Your task to perform on an android device: toggle airplane mode Image 0: 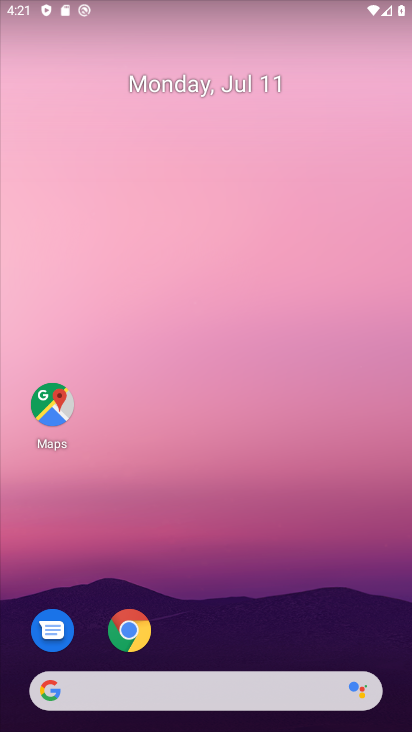
Step 0: drag from (239, 424) to (246, 169)
Your task to perform on an android device: toggle airplane mode Image 1: 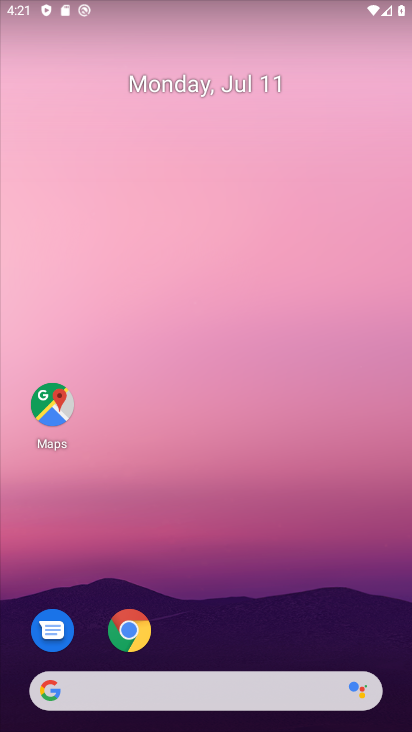
Step 1: drag from (214, 659) to (309, 120)
Your task to perform on an android device: toggle airplane mode Image 2: 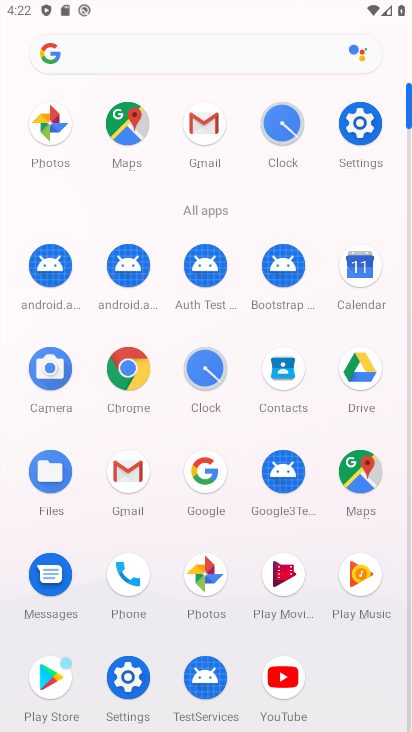
Step 2: click (135, 683)
Your task to perform on an android device: toggle airplane mode Image 3: 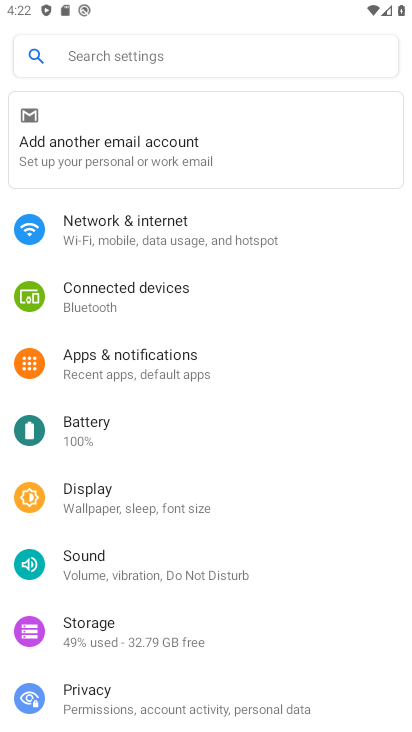
Step 3: click (193, 242)
Your task to perform on an android device: toggle airplane mode Image 4: 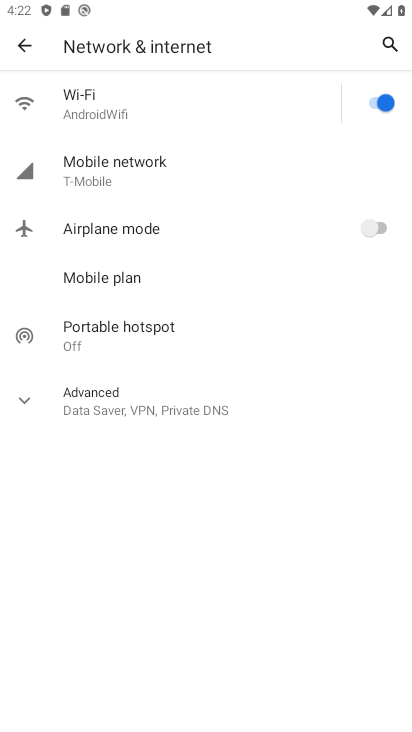
Step 4: click (383, 223)
Your task to perform on an android device: toggle airplane mode Image 5: 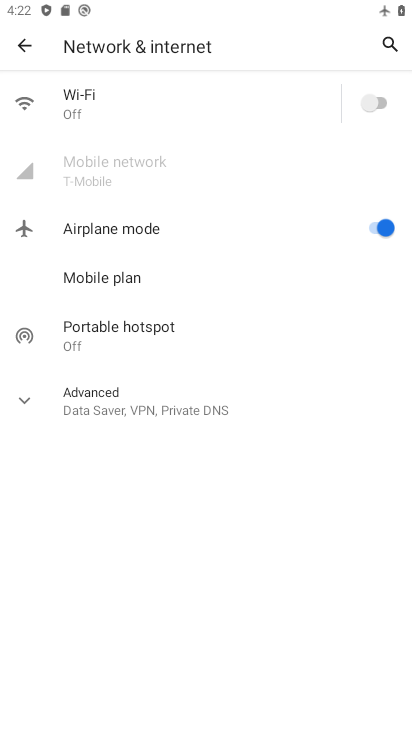
Step 5: task complete